Your task to perform on an android device: open sync settings in chrome Image 0: 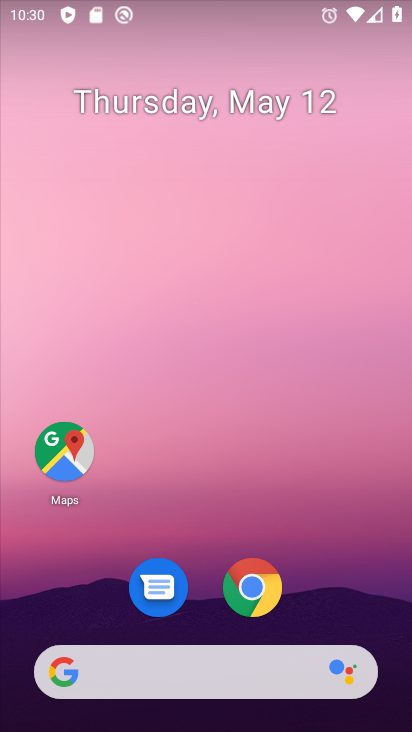
Step 0: drag from (320, 617) to (222, 409)
Your task to perform on an android device: open sync settings in chrome Image 1: 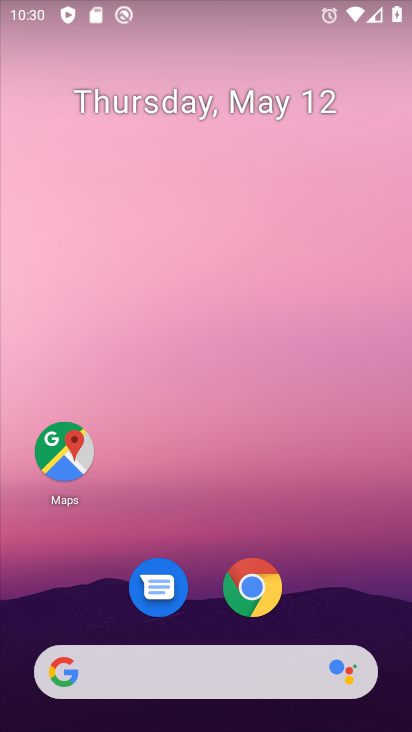
Step 1: click (270, 599)
Your task to perform on an android device: open sync settings in chrome Image 2: 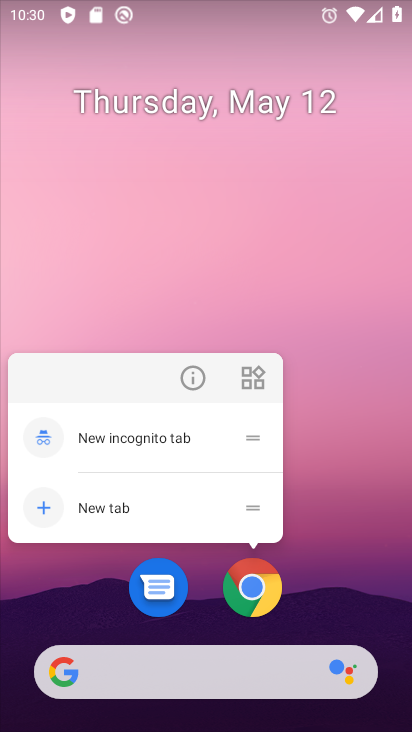
Step 2: click (270, 599)
Your task to perform on an android device: open sync settings in chrome Image 3: 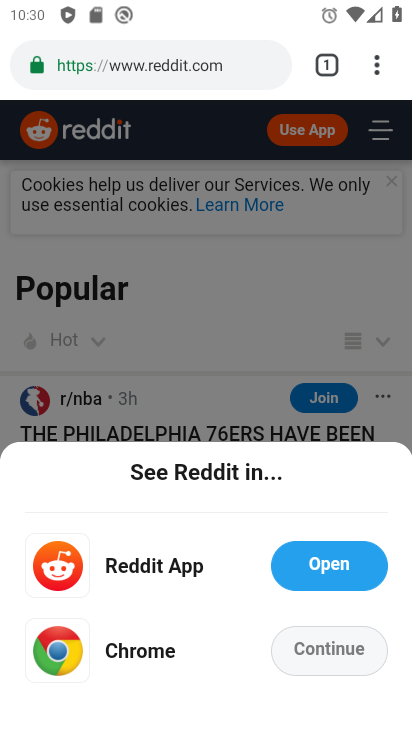
Step 3: drag from (376, 71) to (163, 636)
Your task to perform on an android device: open sync settings in chrome Image 4: 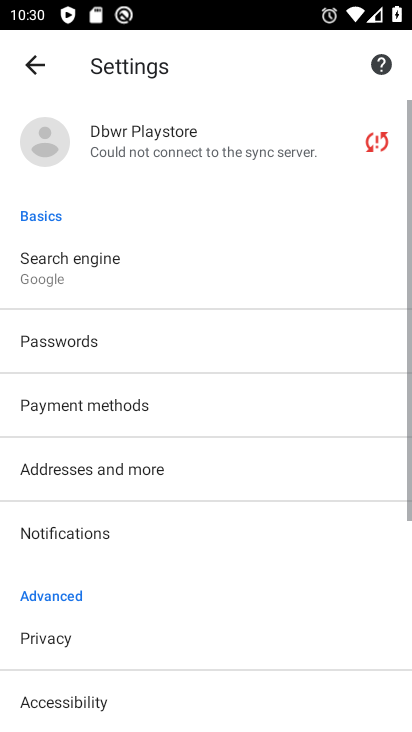
Step 4: drag from (166, 636) to (207, 218)
Your task to perform on an android device: open sync settings in chrome Image 5: 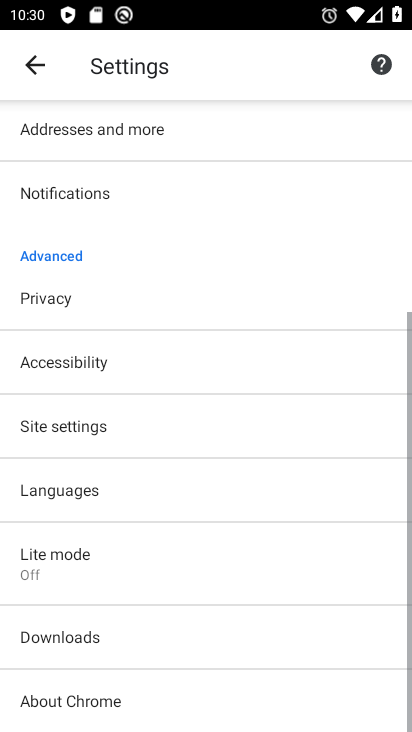
Step 5: drag from (151, 677) to (197, 114)
Your task to perform on an android device: open sync settings in chrome Image 6: 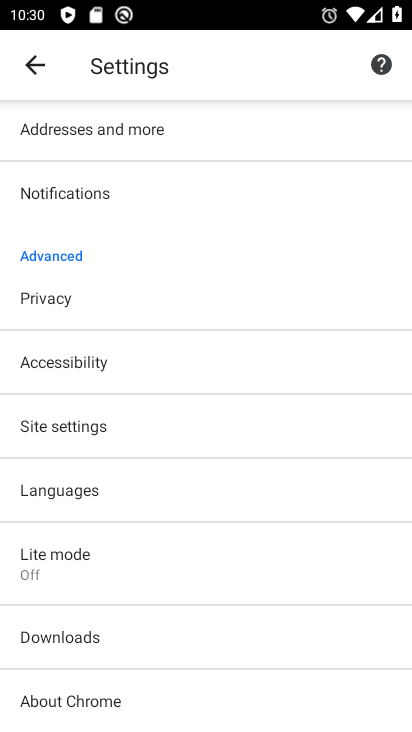
Step 6: click (111, 444)
Your task to perform on an android device: open sync settings in chrome Image 7: 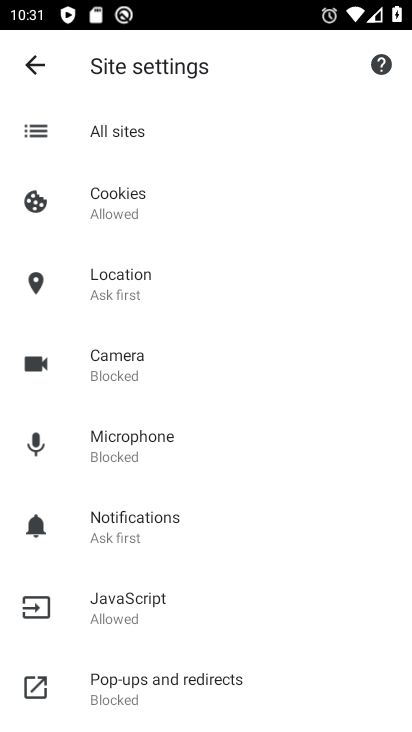
Step 7: drag from (184, 552) to (220, 149)
Your task to perform on an android device: open sync settings in chrome Image 8: 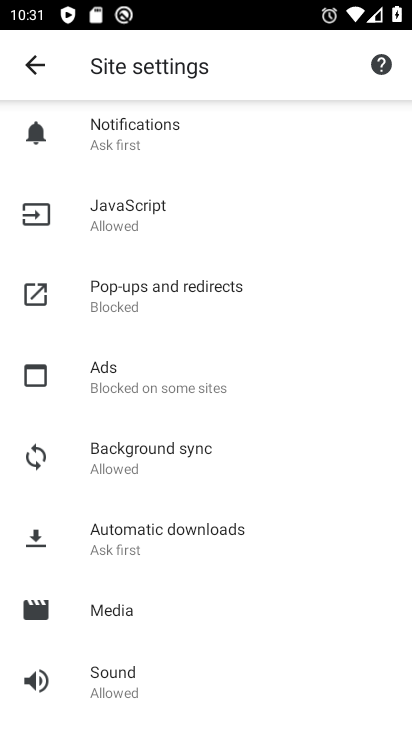
Step 8: click (176, 453)
Your task to perform on an android device: open sync settings in chrome Image 9: 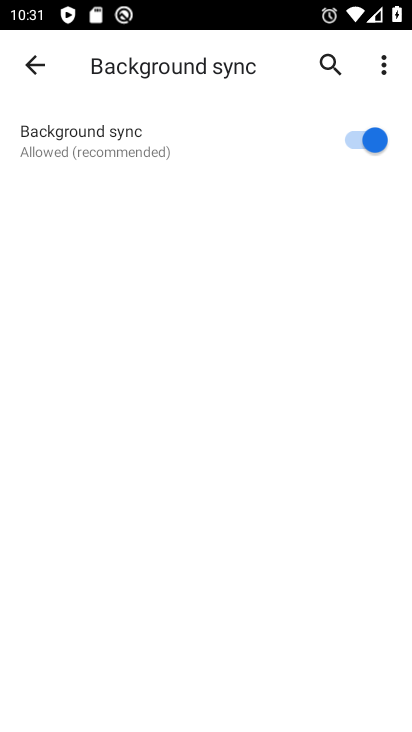
Step 9: task complete